Your task to perform on an android device: toggle translation in the chrome app Image 0: 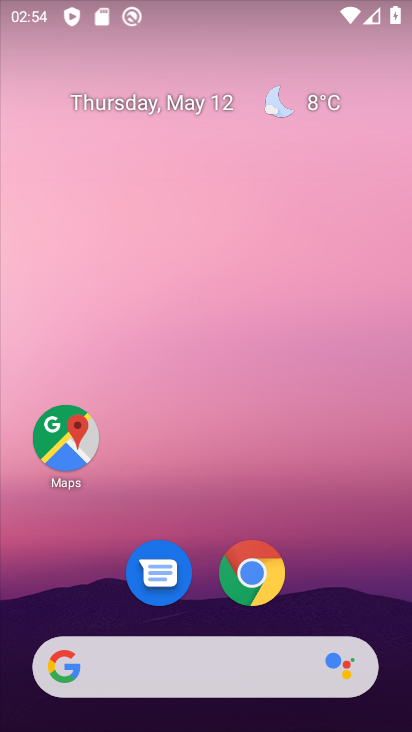
Step 0: press home button
Your task to perform on an android device: toggle translation in the chrome app Image 1: 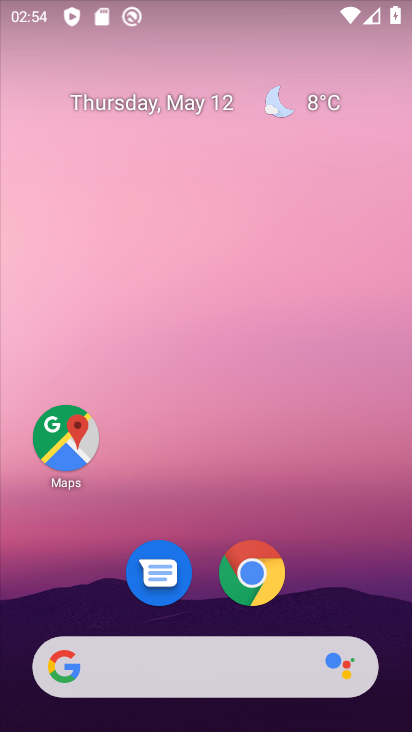
Step 1: click (268, 575)
Your task to perform on an android device: toggle translation in the chrome app Image 2: 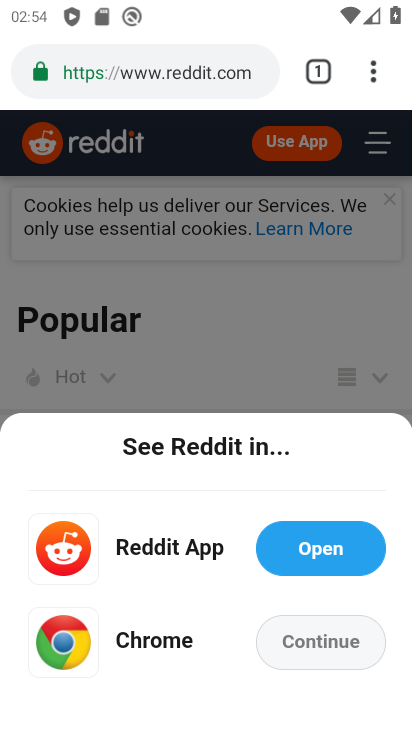
Step 2: drag from (373, 52) to (165, 495)
Your task to perform on an android device: toggle translation in the chrome app Image 3: 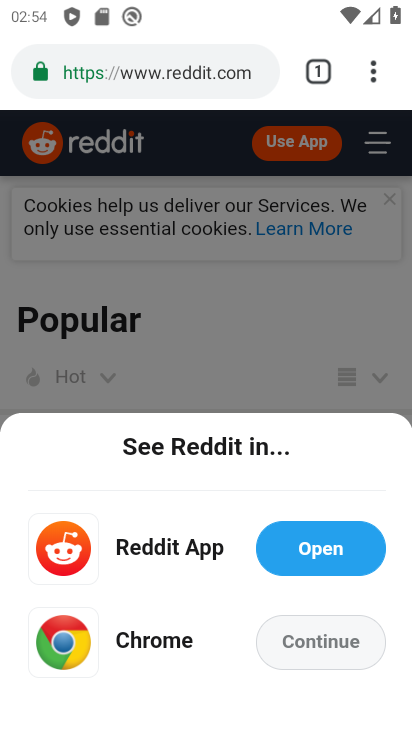
Step 3: click (165, 495)
Your task to perform on an android device: toggle translation in the chrome app Image 4: 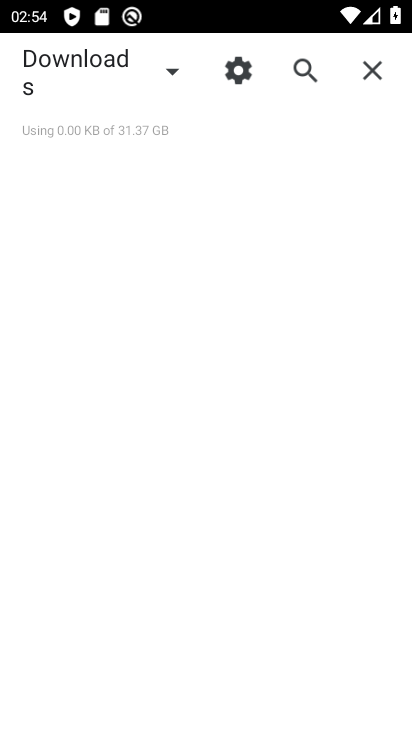
Step 4: click (372, 70)
Your task to perform on an android device: toggle translation in the chrome app Image 5: 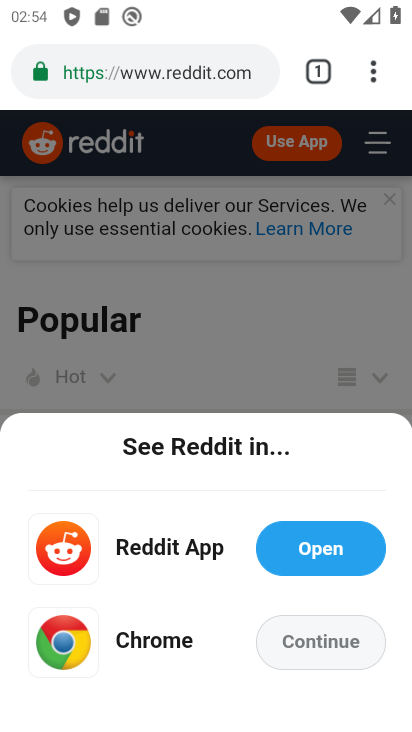
Step 5: drag from (372, 70) to (170, 588)
Your task to perform on an android device: toggle translation in the chrome app Image 6: 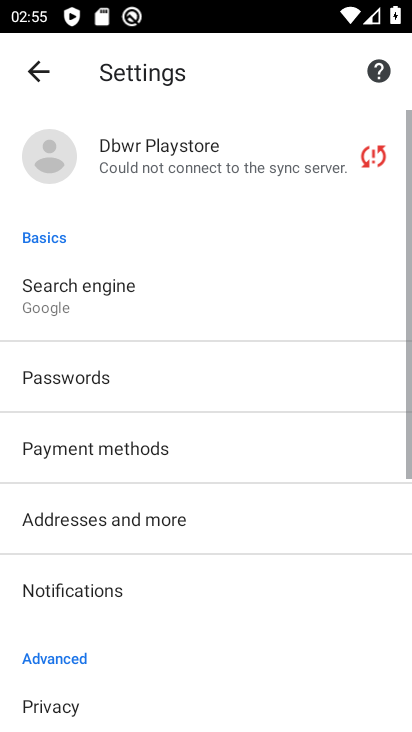
Step 6: drag from (170, 588) to (191, 179)
Your task to perform on an android device: toggle translation in the chrome app Image 7: 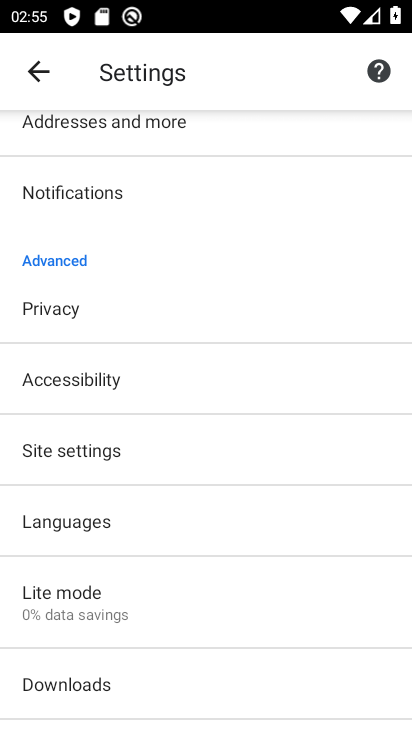
Step 7: click (188, 506)
Your task to perform on an android device: toggle translation in the chrome app Image 8: 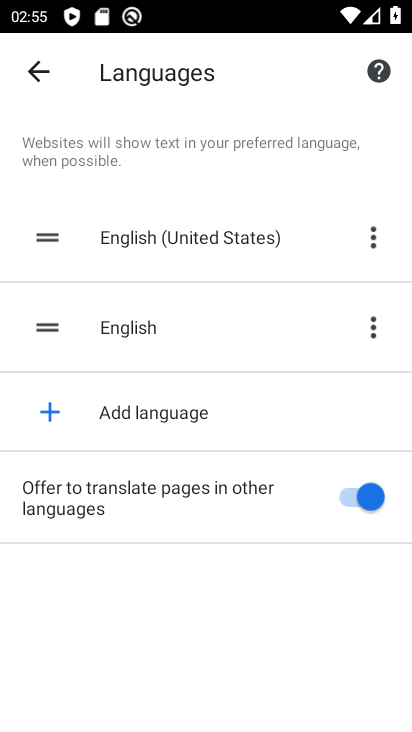
Step 8: click (253, 491)
Your task to perform on an android device: toggle translation in the chrome app Image 9: 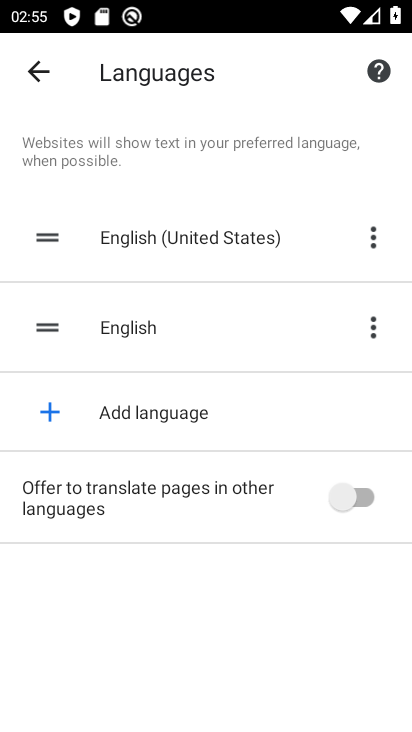
Step 9: task complete